Your task to perform on an android device: check google app version Image 0: 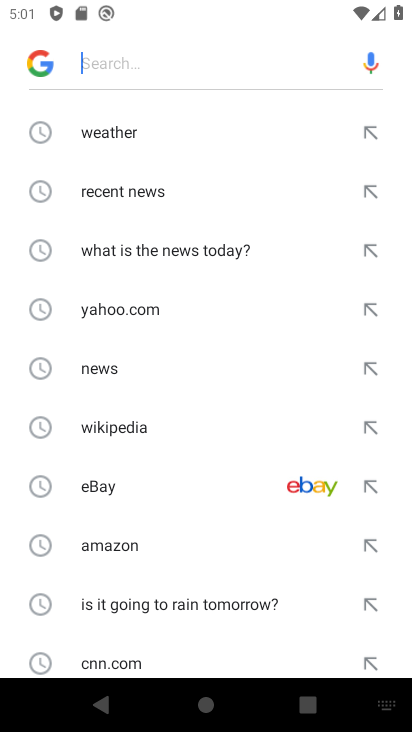
Step 0: press home button
Your task to perform on an android device: check google app version Image 1: 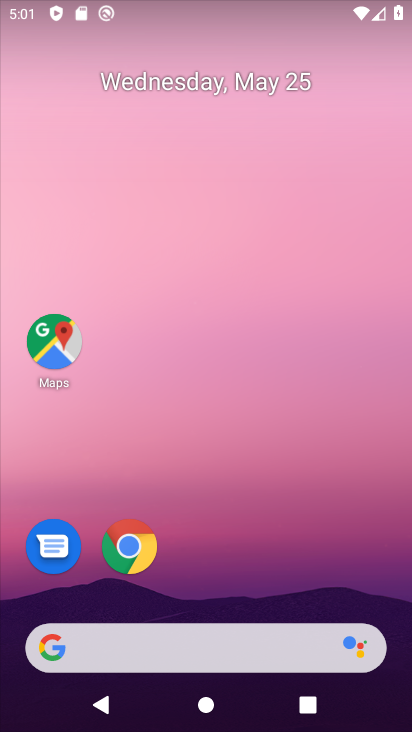
Step 1: drag from (263, 707) to (278, 178)
Your task to perform on an android device: check google app version Image 2: 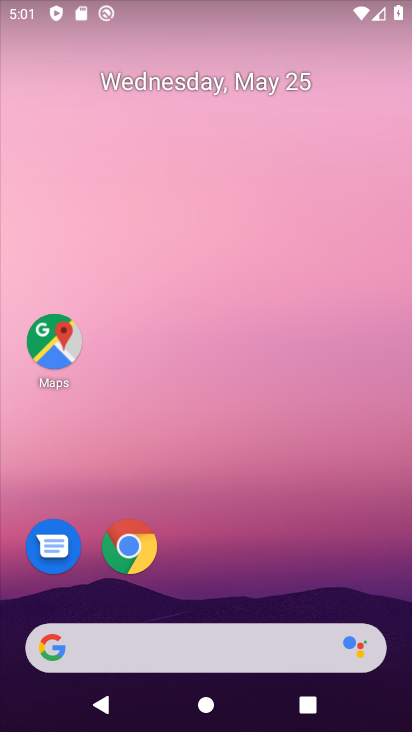
Step 2: drag from (255, 586) to (260, 3)
Your task to perform on an android device: check google app version Image 3: 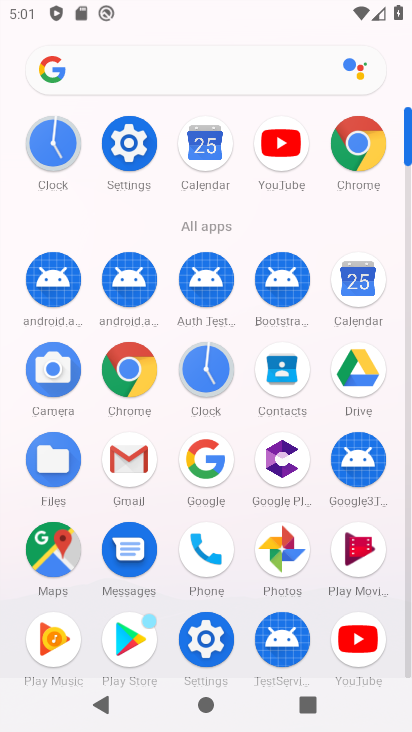
Step 3: click (195, 454)
Your task to perform on an android device: check google app version Image 4: 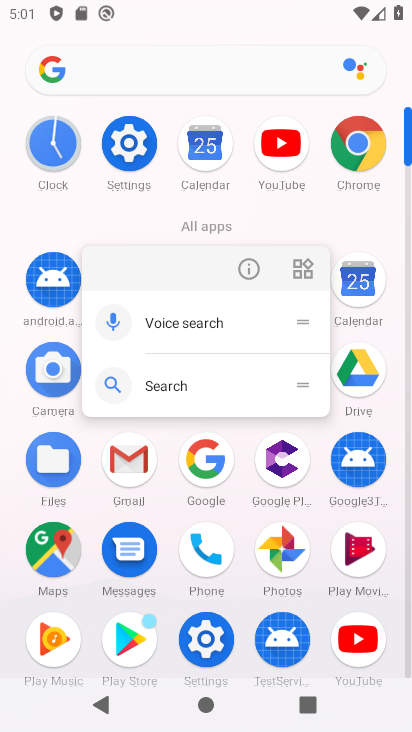
Step 4: click (252, 262)
Your task to perform on an android device: check google app version Image 5: 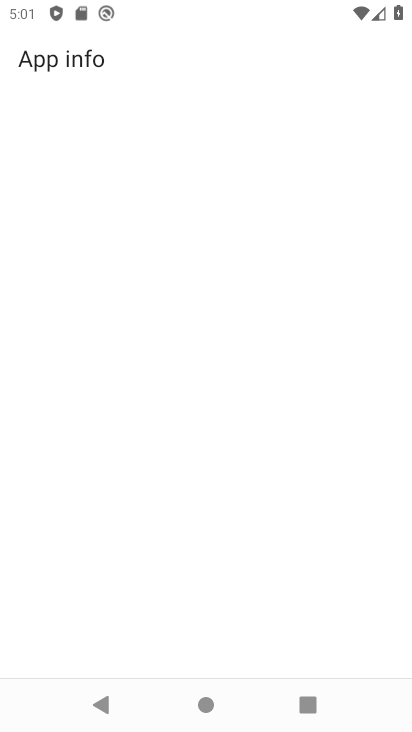
Step 5: drag from (254, 438) to (262, 5)
Your task to perform on an android device: check google app version Image 6: 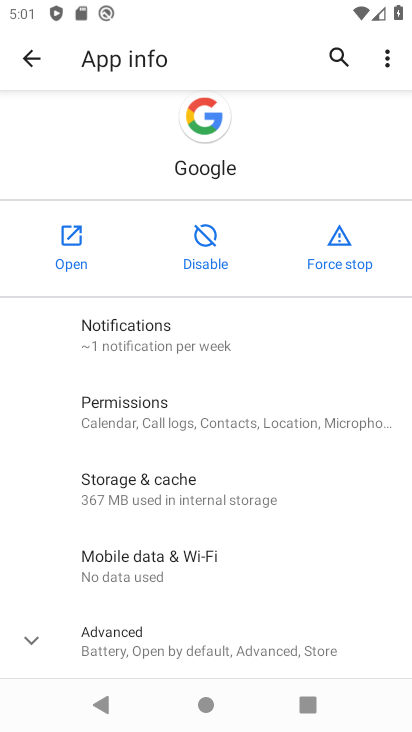
Step 6: click (226, 652)
Your task to perform on an android device: check google app version Image 7: 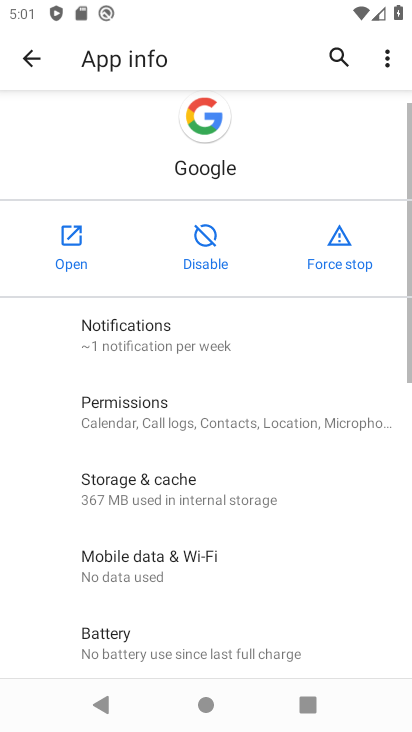
Step 7: task complete